Your task to perform on an android device: turn off location history Image 0: 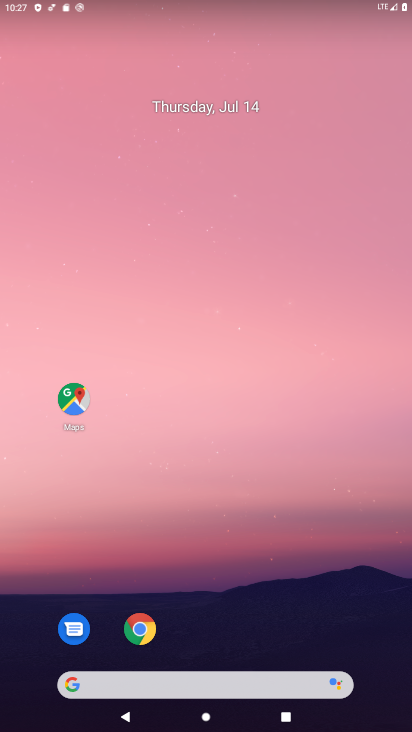
Step 0: drag from (220, 650) to (370, 135)
Your task to perform on an android device: turn off location history Image 1: 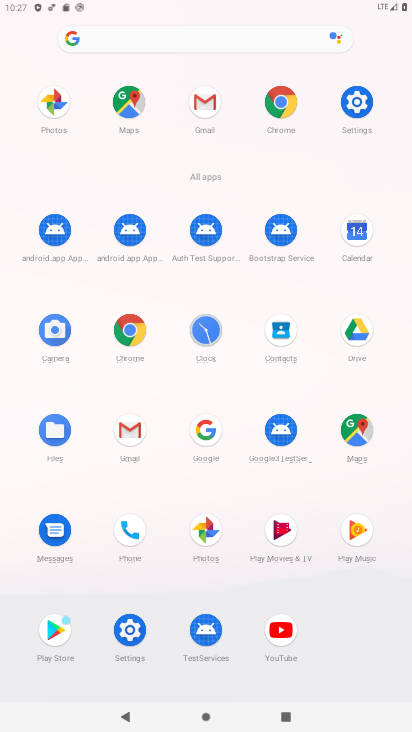
Step 1: click (126, 630)
Your task to perform on an android device: turn off location history Image 2: 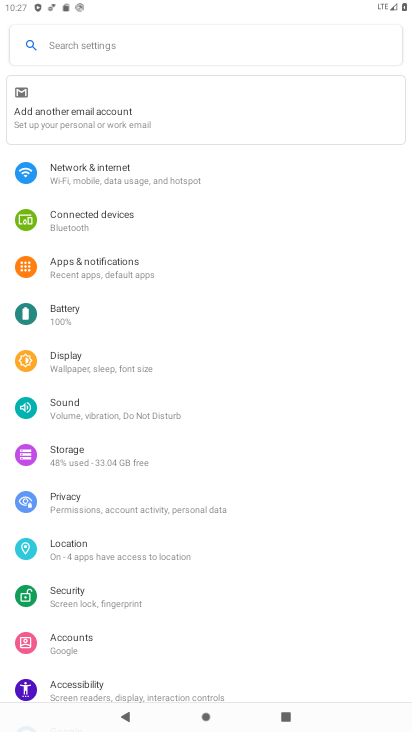
Step 2: click (112, 560)
Your task to perform on an android device: turn off location history Image 3: 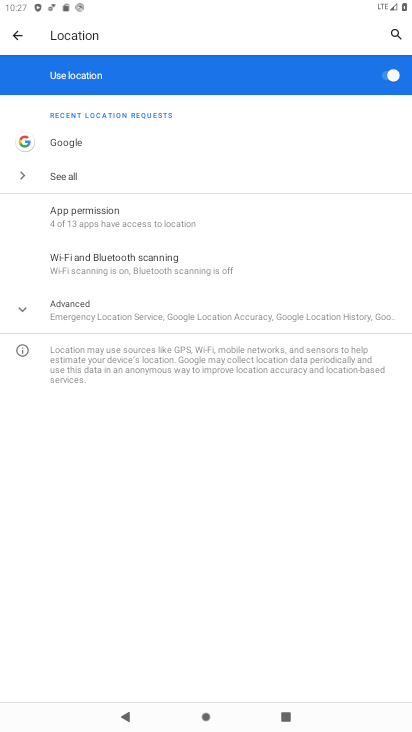
Step 3: click (127, 314)
Your task to perform on an android device: turn off location history Image 4: 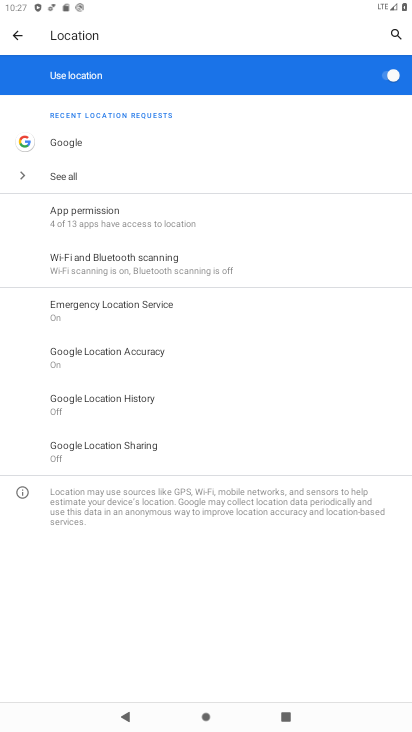
Step 4: click (124, 404)
Your task to perform on an android device: turn off location history Image 5: 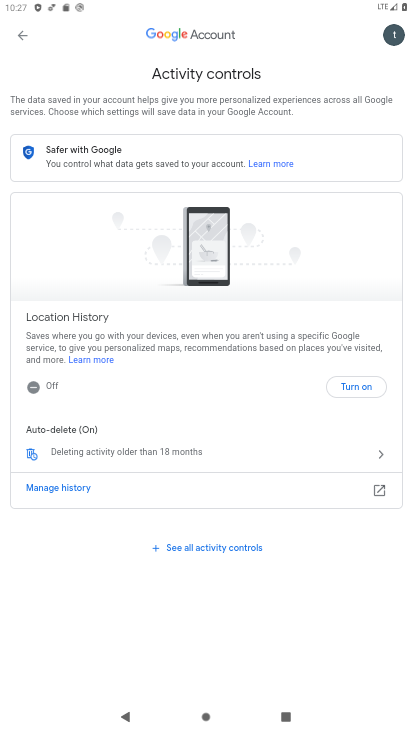
Step 5: task complete